Your task to perform on an android device: Do I have any events this weekend? Image 0: 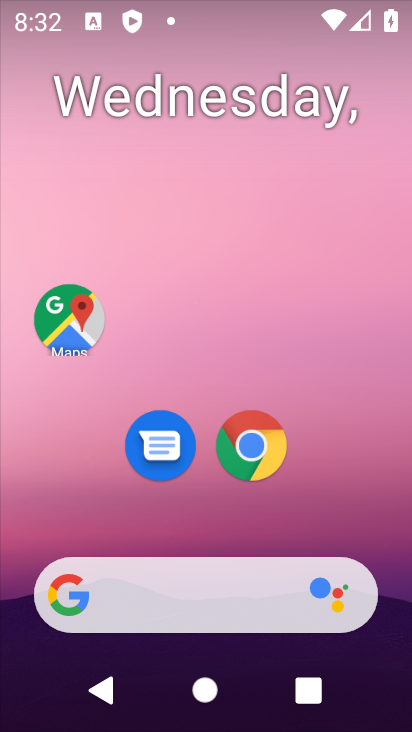
Step 0: drag from (313, 385) to (269, 59)
Your task to perform on an android device: Do I have any events this weekend? Image 1: 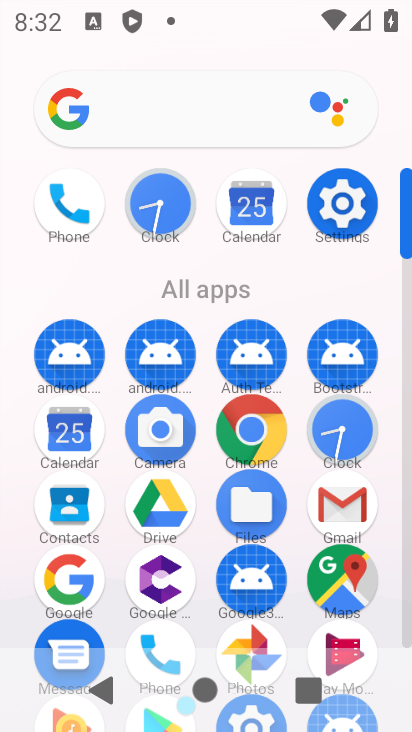
Step 1: click (259, 222)
Your task to perform on an android device: Do I have any events this weekend? Image 2: 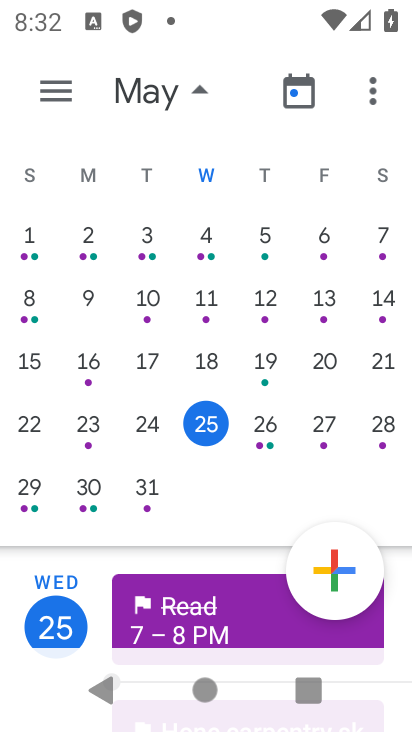
Step 2: task complete